Your task to perform on an android device: open a new tab in the chrome app Image 0: 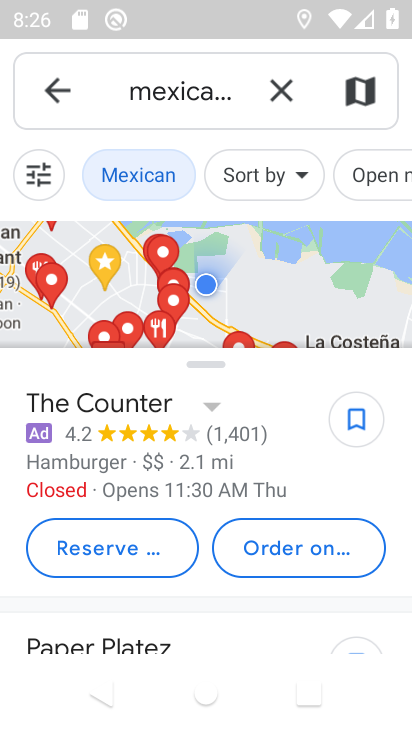
Step 0: press home button
Your task to perform on an android device: open a new tab in the chrome app Image 1: 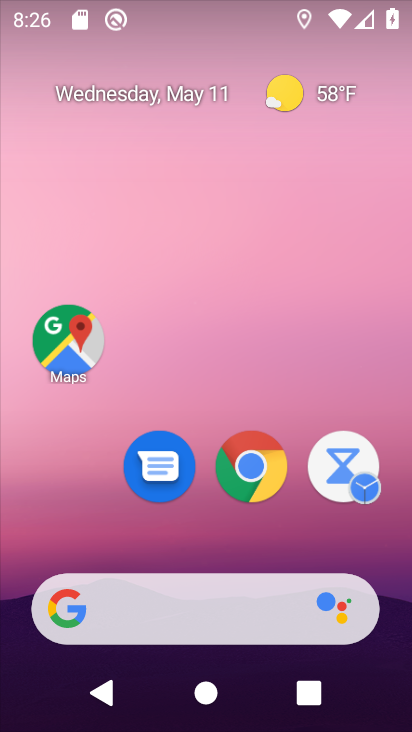
Step 1: click (246, 478)
Your task to perform on an android device: open a new tab in the chrome app Image 2: 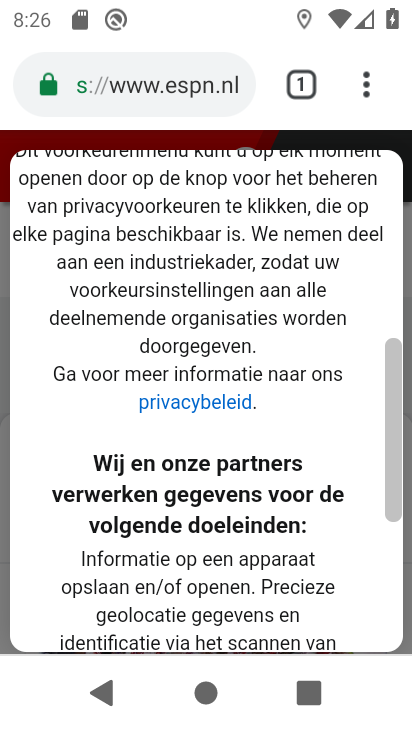
Step 2: click (365, 88)
Your task to perform on an android device: open a new tab in the chrome app Image 3: 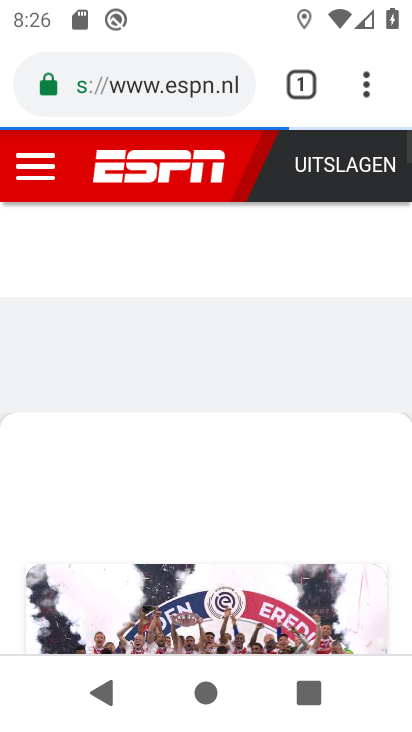
Step 3: click (364, 108)
Your task to perform on an android device: open a new tab in the chrome app Image 4: 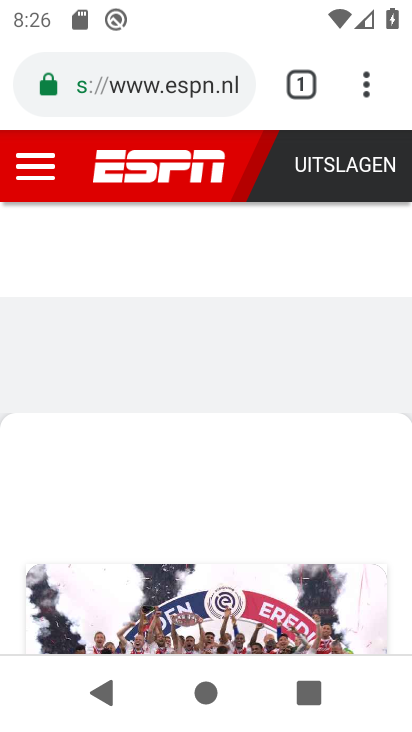
Step 4: click (364, 124)
Your task to perform on an android device: open a new tab in the chrome app Image 5: 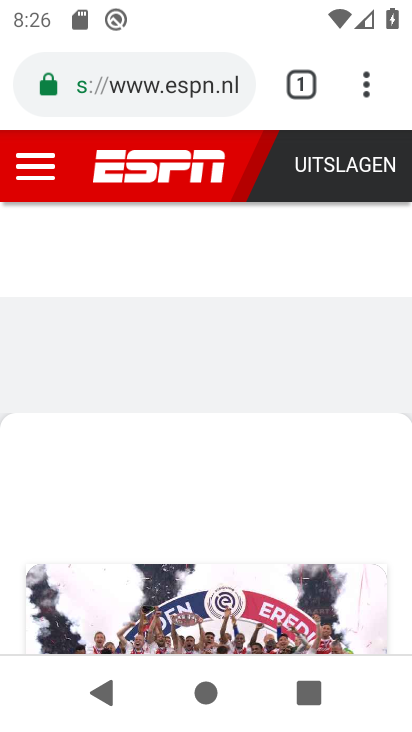
Step 5: click (364, 126)
Your task to perform on an android device: open a new tab in the chrome app Image 6: 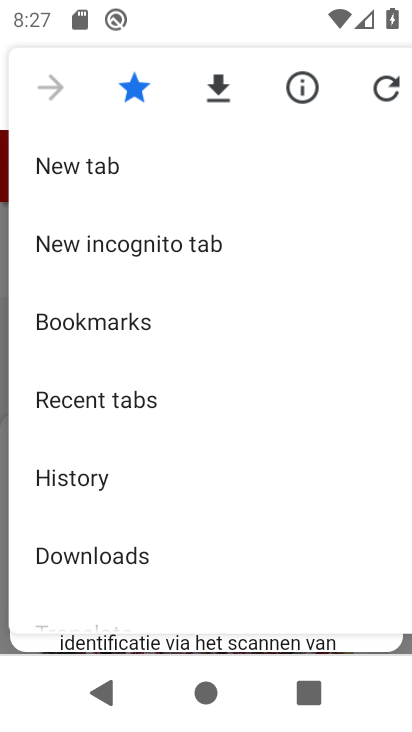
Step 6: click (314, 152)
Your task to perform on an android device: open a new tab in the chrome app Image 7: 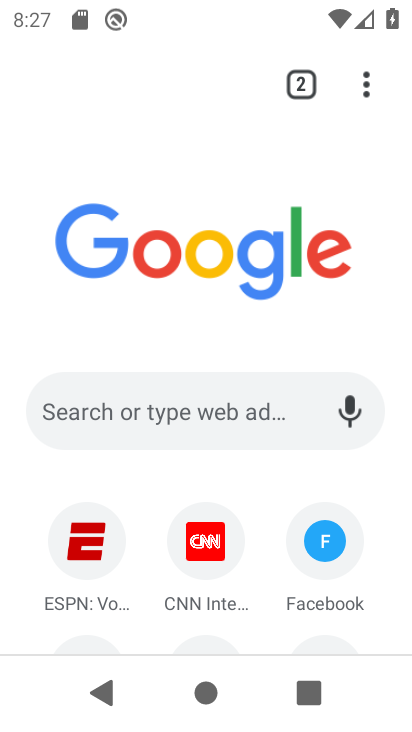
Step 7: task complete